Your task to perform on an android device: turn off translation in the chrome app Image 0: 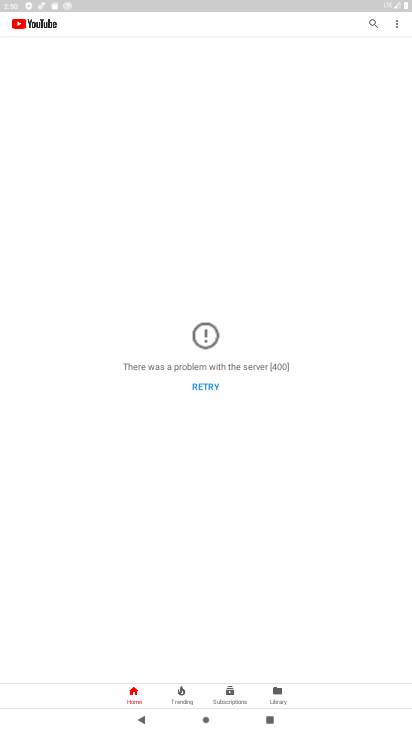
Step 0: press home button
Your task to perform on an android device: turn off translation in the chrome app Image 1: 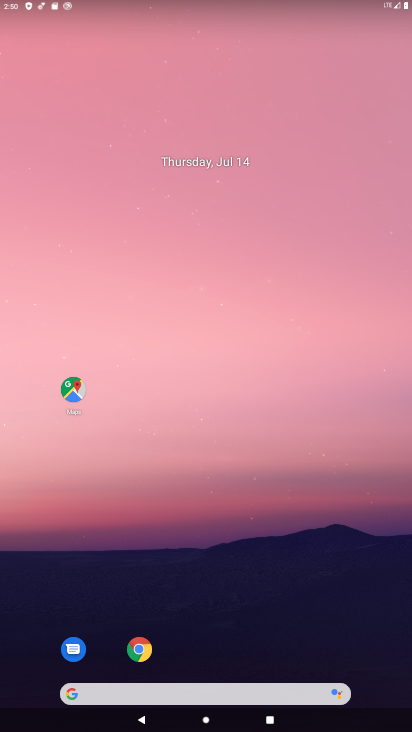
Step 1: click (141, 646)
Your task to perform on an android device: turn off translation in the chrome app Image 2: 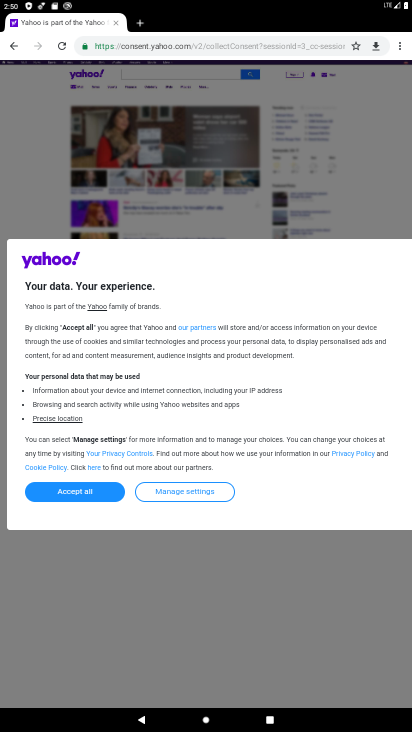
Step 2: click (398, 42)
Your task to perform on an android device: turn off translation in the chrome app Image 3: 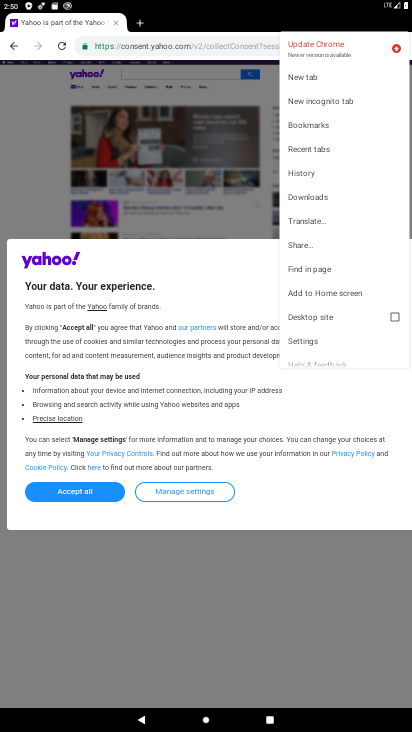
Step 3: click (311, 336)
Your task to perform on an android device: turn off translation in the chrome app Image 4: 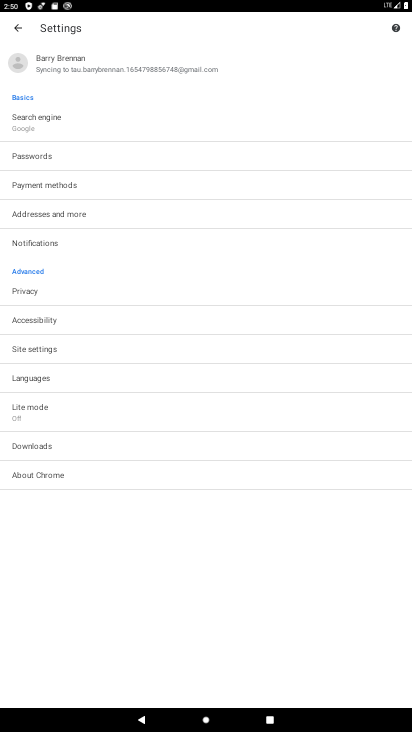
Step 4: click (63, 376)
Your task to perform on an android device: turn off translation in the chrome app Image 5: 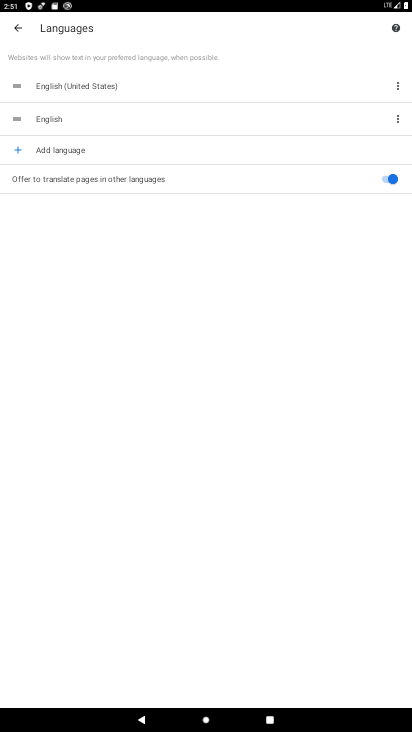
Step 5: click (355, 183)
Your task to perform on an android device: turn off translation in the chrome app Image 6: 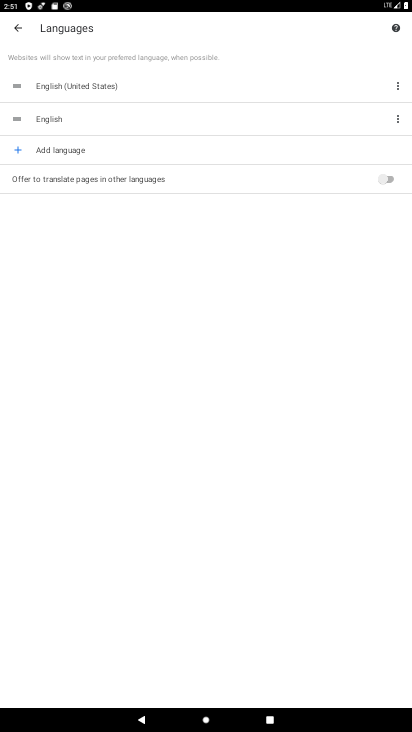
Step 6: task complete